Your task to perform on an android device: Show the shopping cart on ebay. Add "bose soundlink mini" to the cart on ebay Image 0: 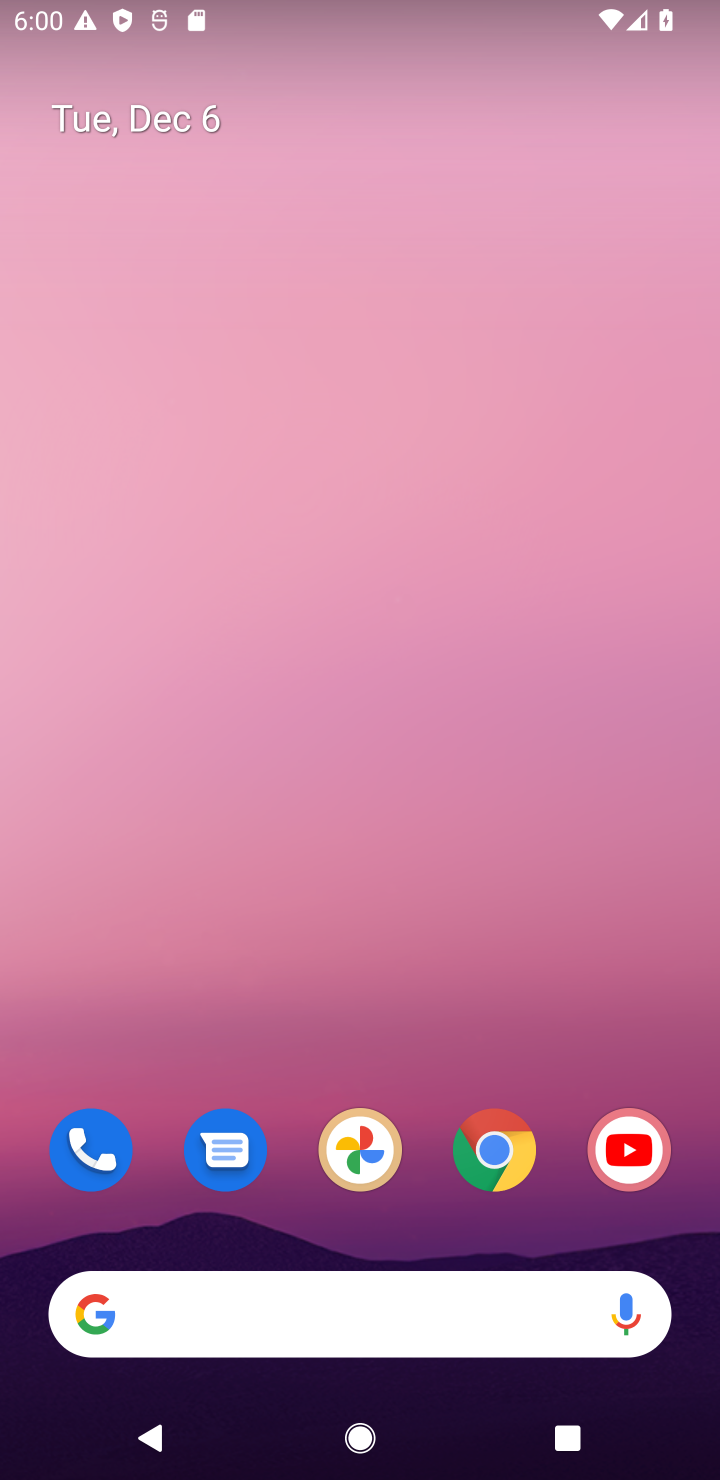
Step 0: click (495, 1175)
Your task to perform on an android device: Show the shopping cart on ebay. Add "bose soundlink mini" to the cart on ebay Image 1: 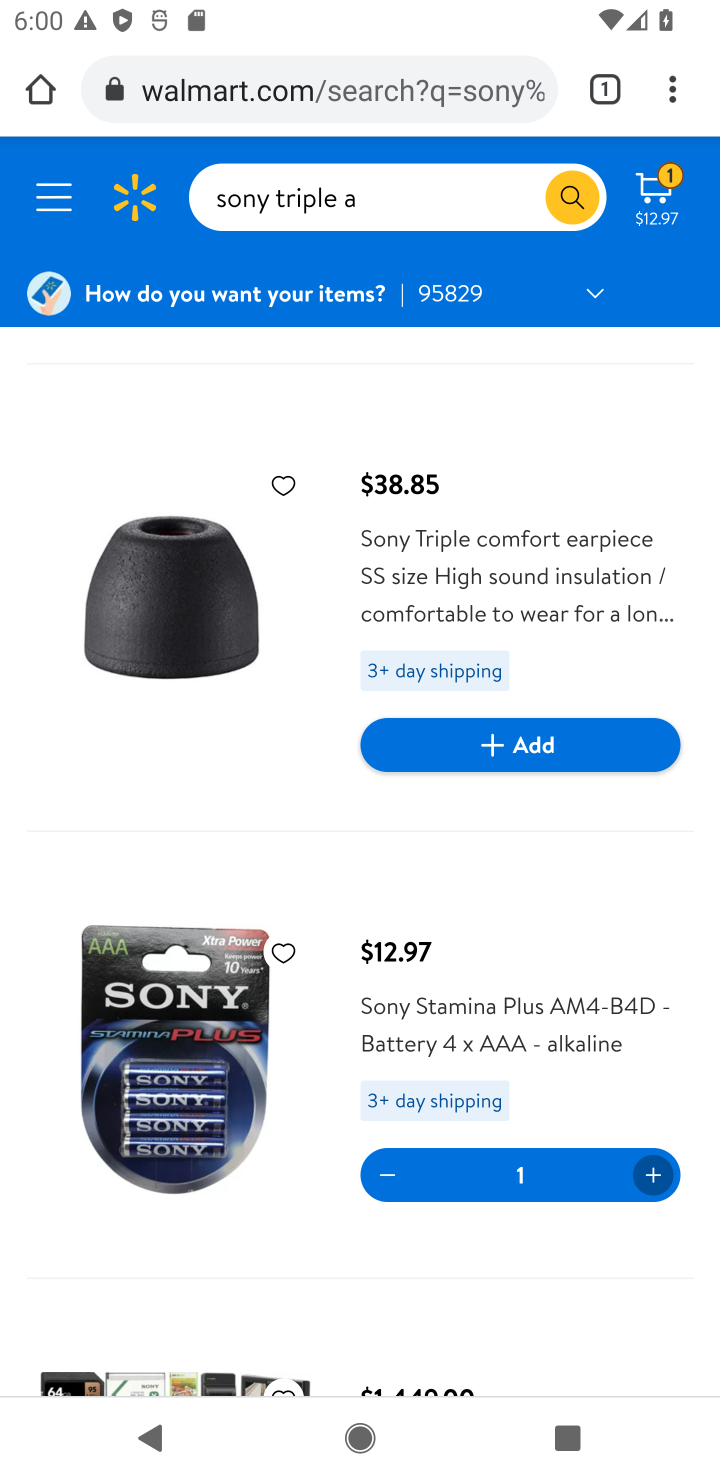
Step 1: click (270, 99)
Your task to perform on an android device: Show the shopping cart on ebay. Add "bose soundlink mini" to the cart on ebay Image 2: 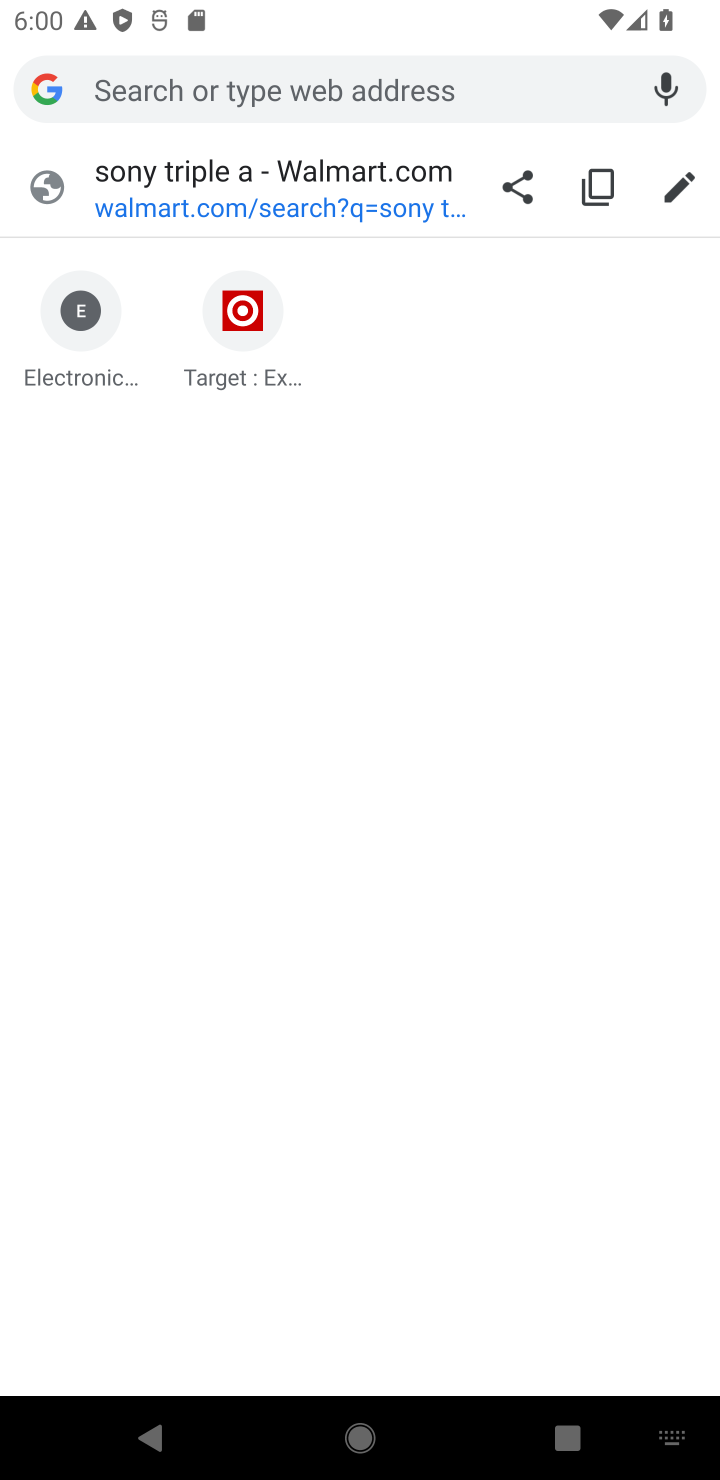
Step 2: type "ebay.com"
Your task to perform on an android device: Show the shopping cart on ebay. Add "bose soundlink mini" to the cart on ebay Image 3: 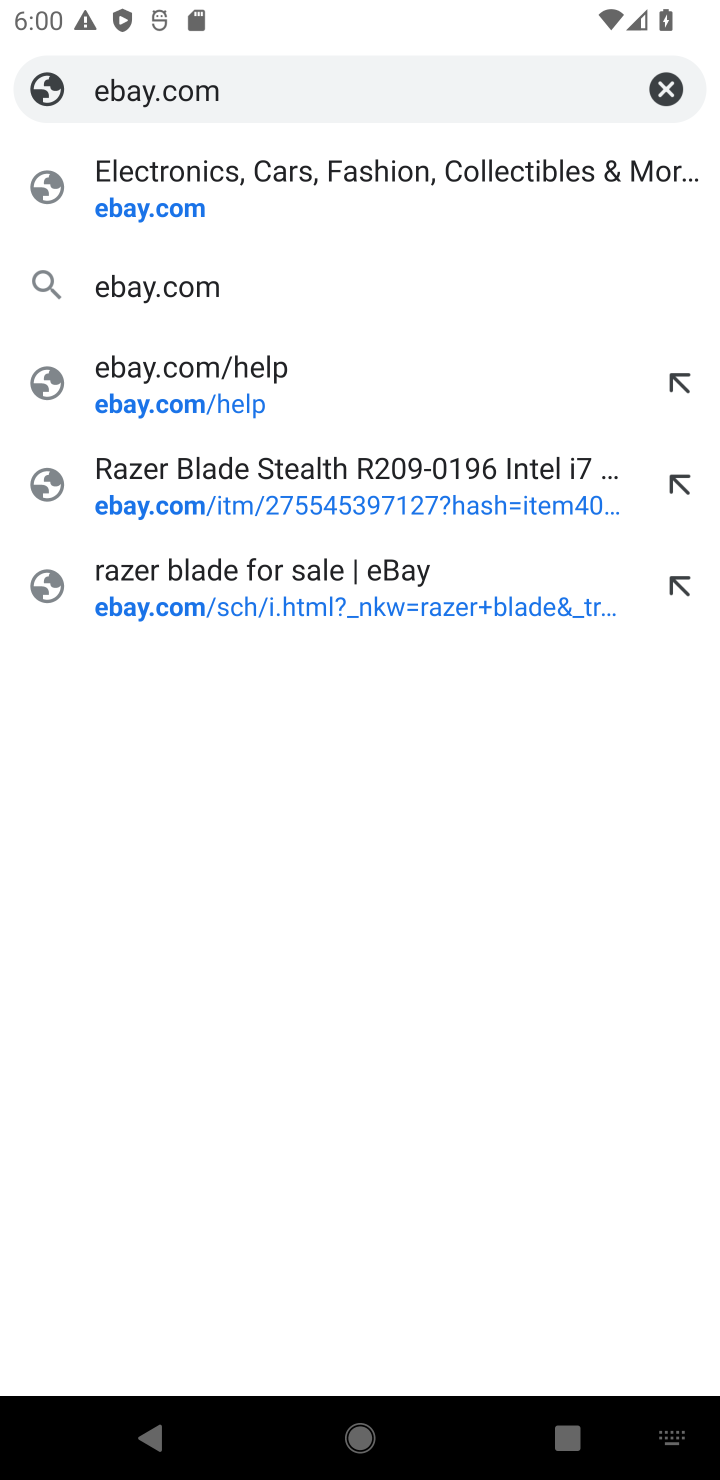
Step 3: click (119, 212)
Your task to perform on an android device: Show the shopping cart on ebay. Add "bose soundlink mini" to the cart on ebay Image 4: 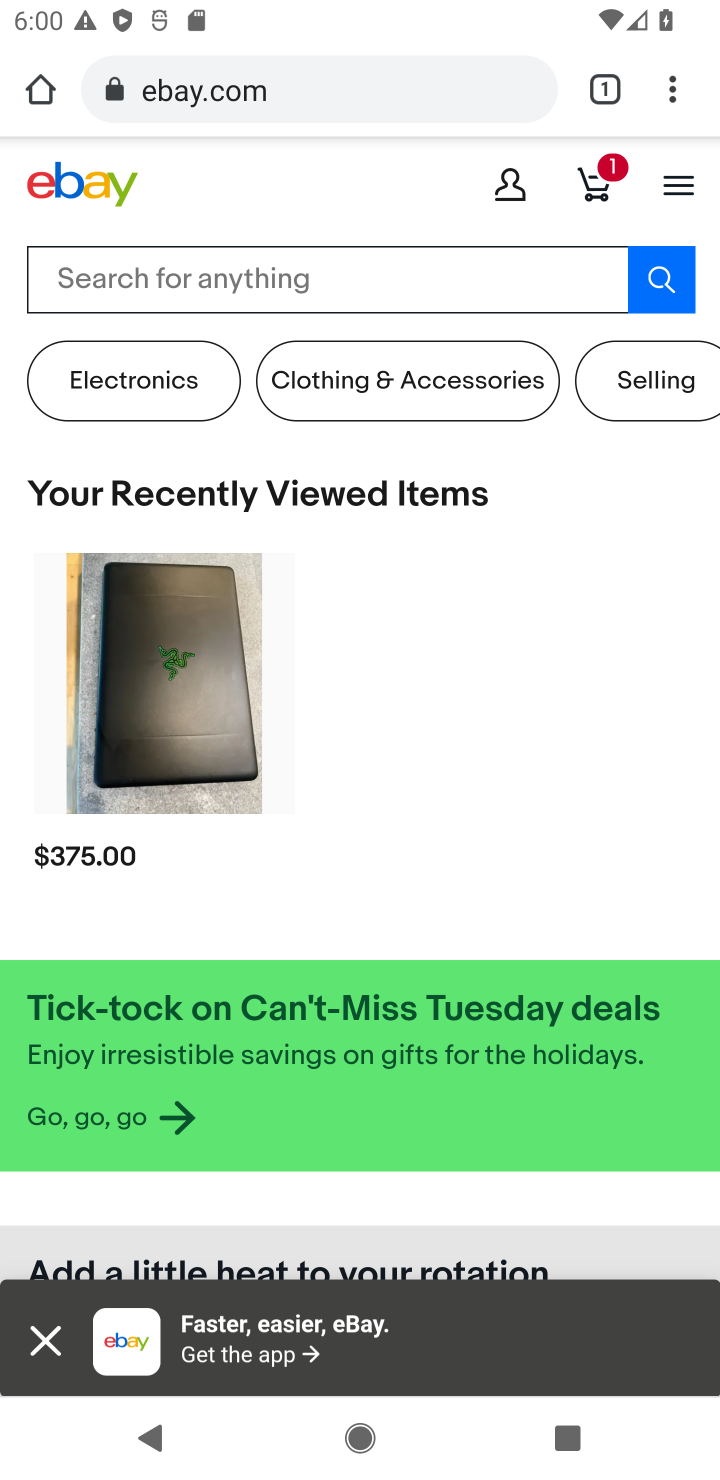
Step 4: click (597, 181)
Your task to perform on an android device: Show the shopping cart on ebay. Add "bose soundlink mini" to the cart on ebay Image 5: 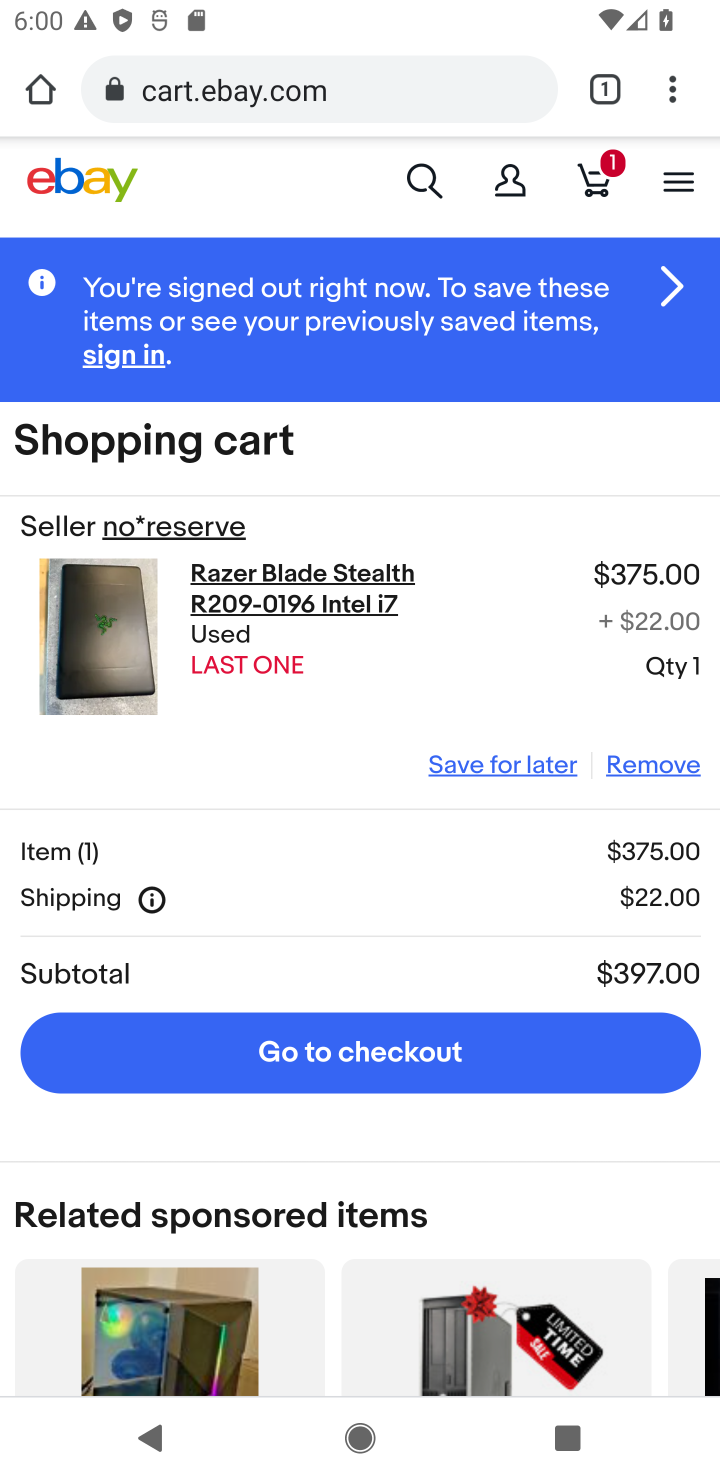
Step 5: click (421, 178)
Your task to perform on an android device: Show the shopping cart on ebay. Add "bose soundlink mini" to the cart on ebay Image 6: 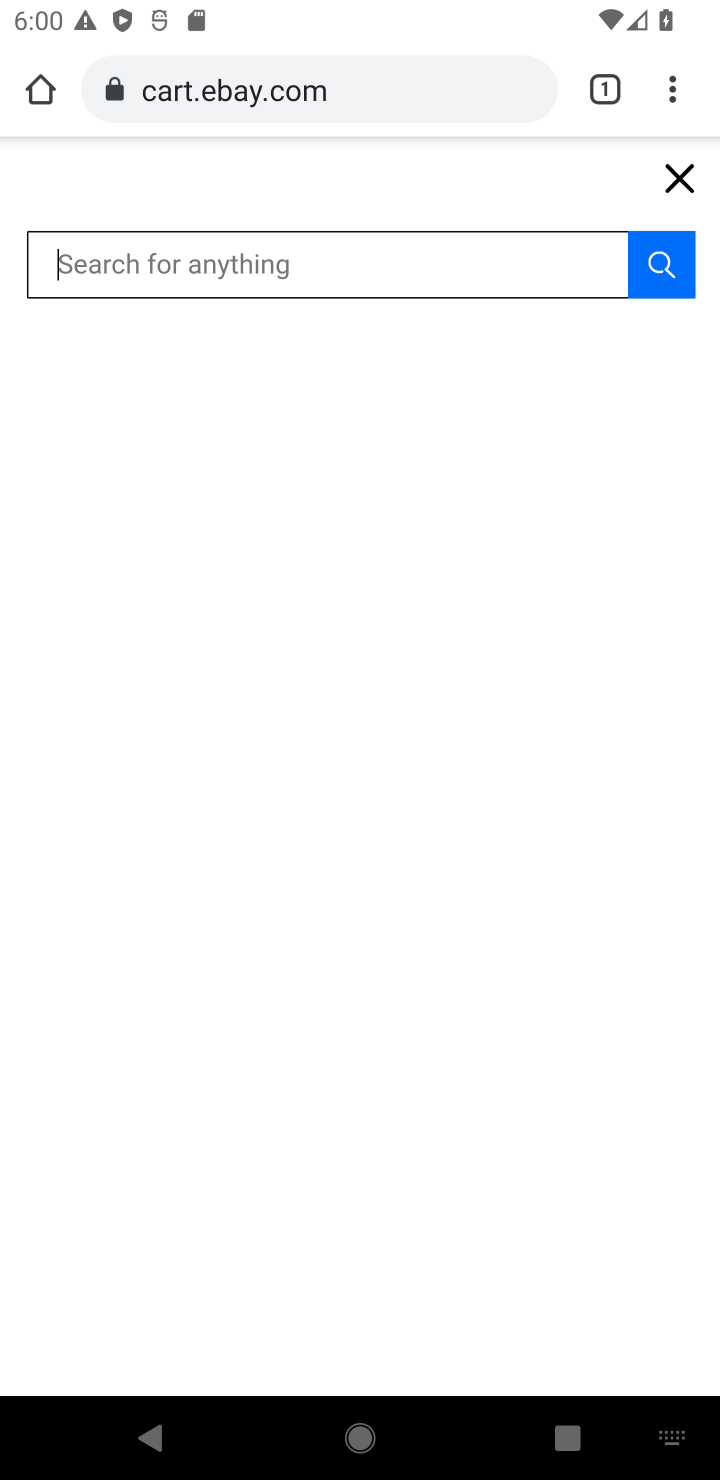
Step 6: type "bose soundlink mini"
Your task to perform on an android device: Show the shopping cart on ebay. Add "bose soundlink mini" to the cart on ebay Image 7: 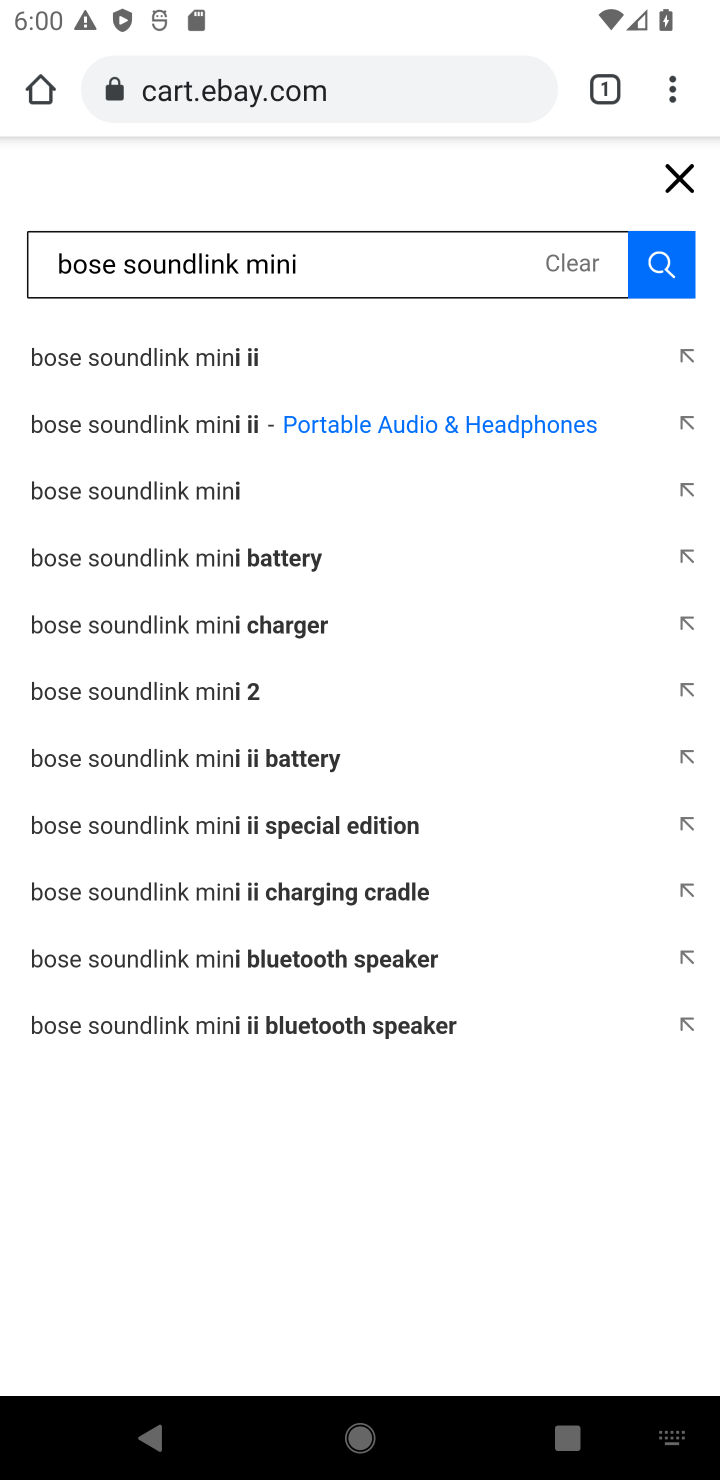
Step 7: click (130, 502)
Your task to perform on an android device: Show the shopping cart on ebay. Add "bose soundlink mini" to the cart on ebay Image 8: 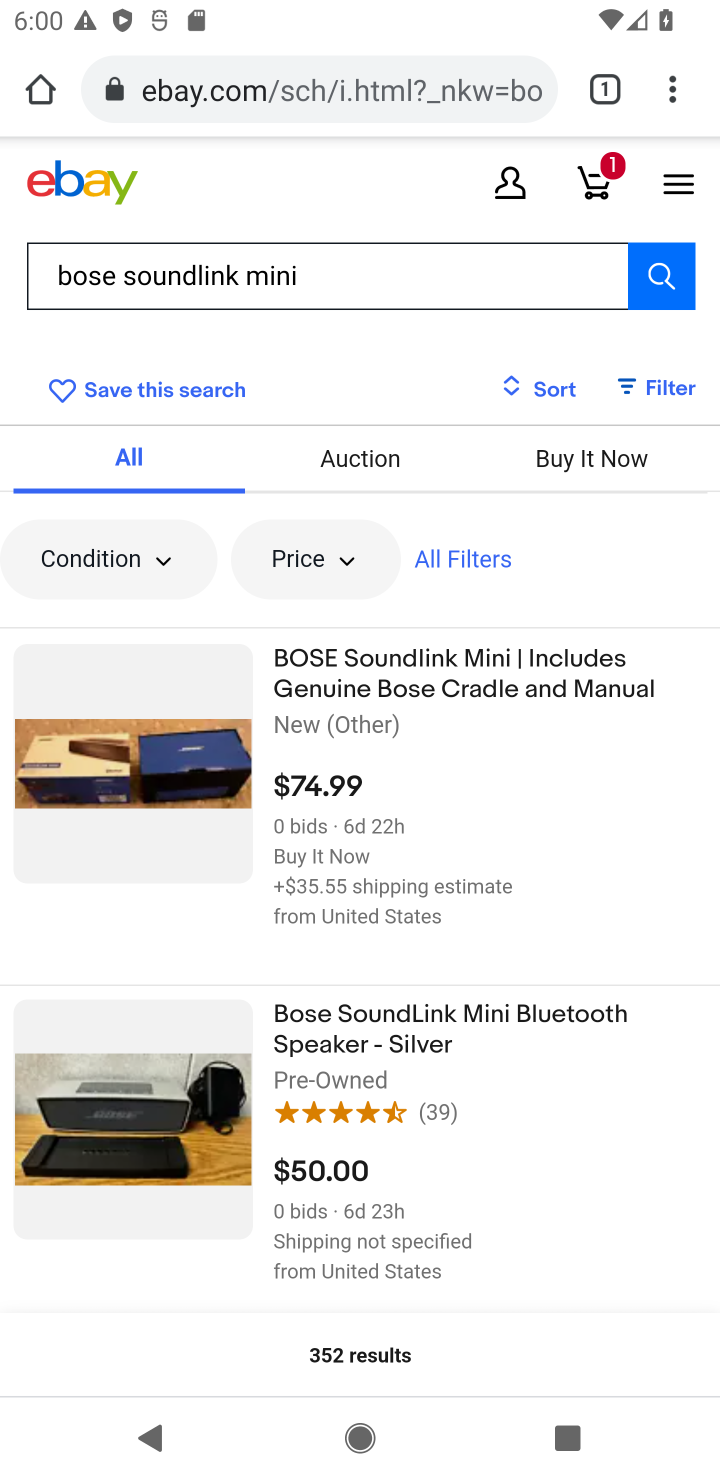
Step 8: drag from (544, 926) to (585, 487)
Your task to perform on an android device: Show the shopping cart on ebay. Add "bose soundlink mini" to the cart on ebay Image 9: 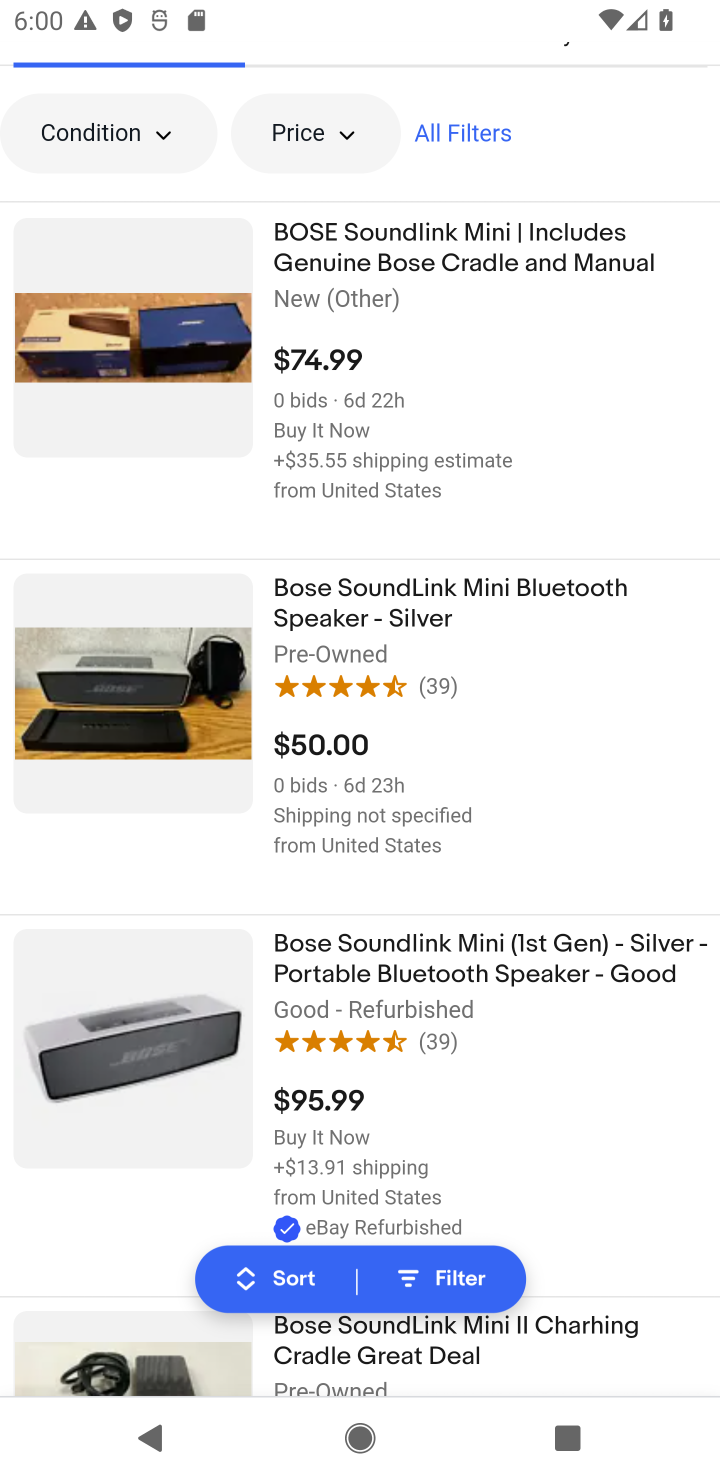
Step 9: click (350, 991)
Your task to perform on an android device: Show the shopping cart on ebay. Add "bose soundlink mini" to the cart on ebay Image 10: 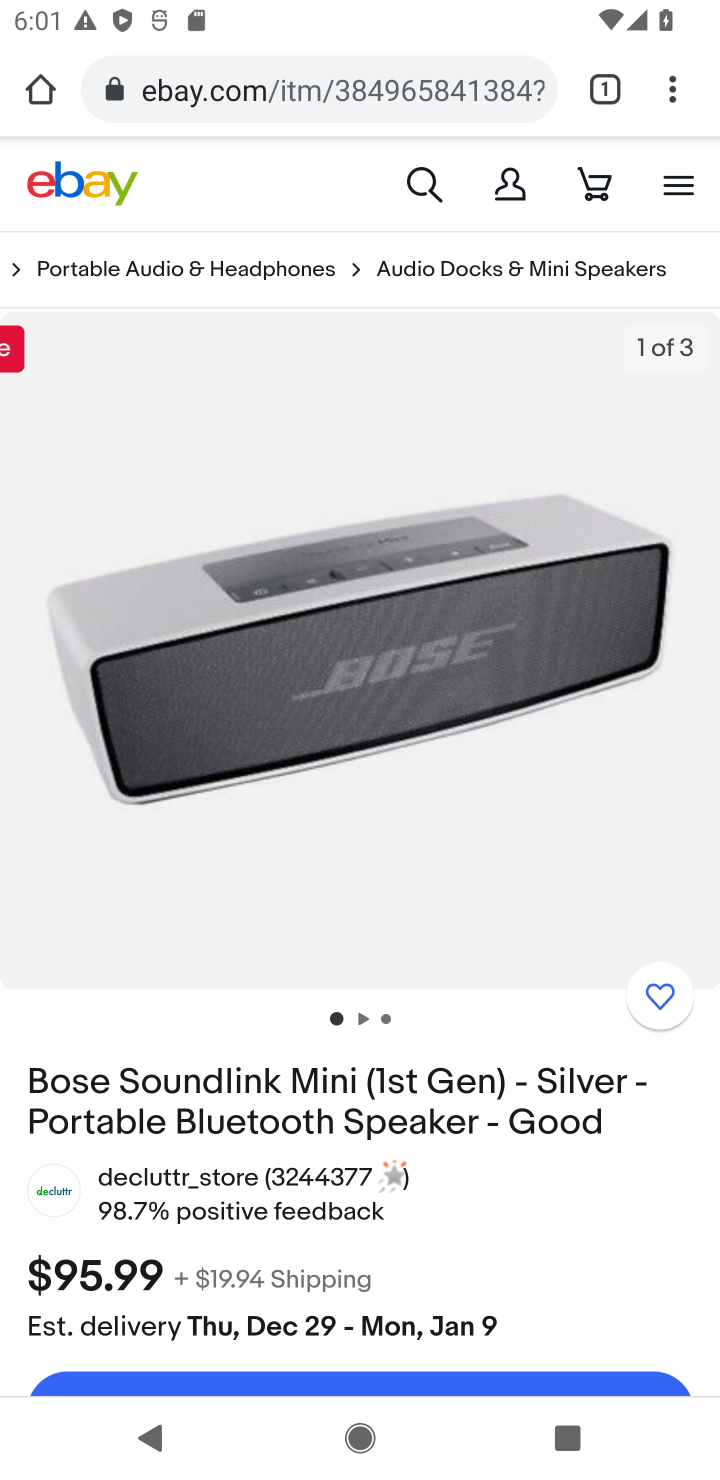
Step 10: drag from (380, 995) to (292, 537)
Your task to perform on an android device: Show the shopping cart on ebay. Add "bose soundlink mini" to the cart on ebay Image 11: 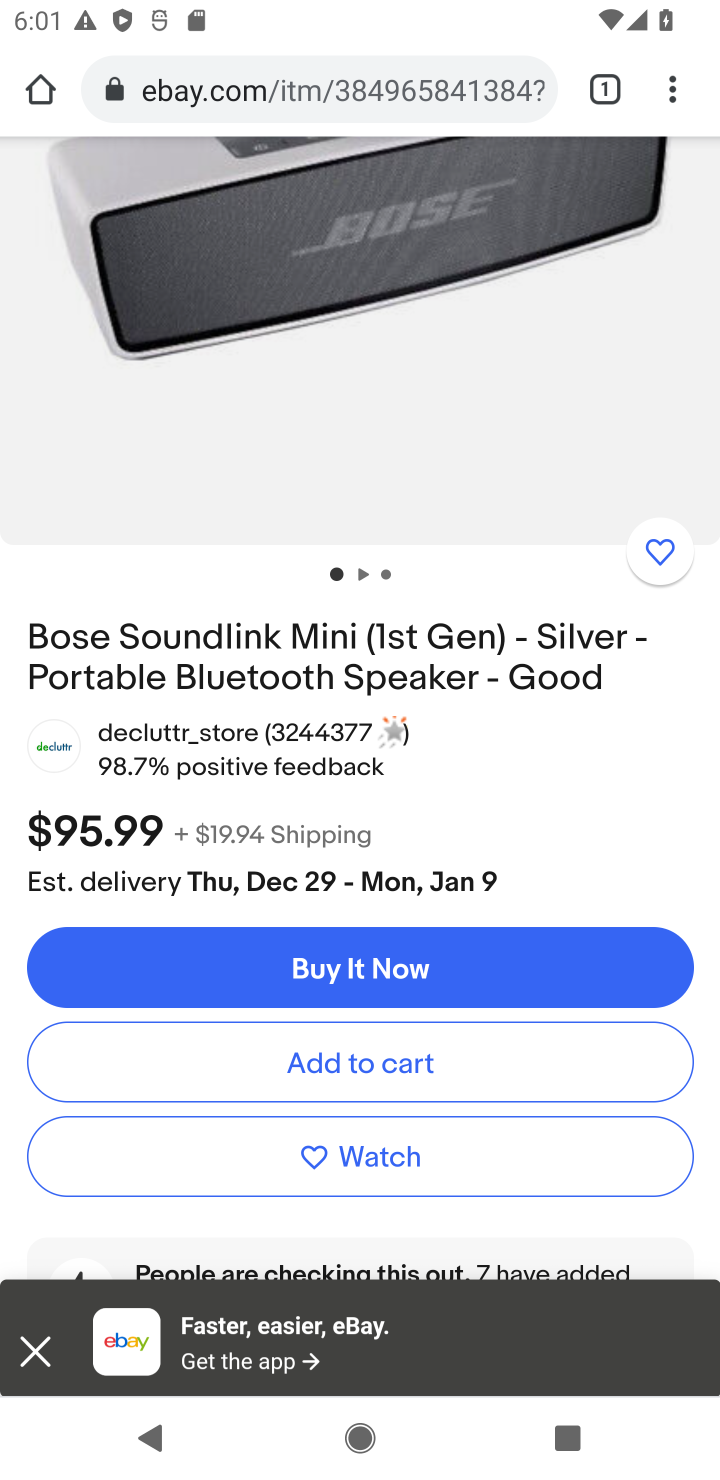
Step 11: click (295, 1070)
Your task to perform on an android device: Show the shopping cart on ebay. Add "bose soundlink mini" to the cart on ebay Image 12: 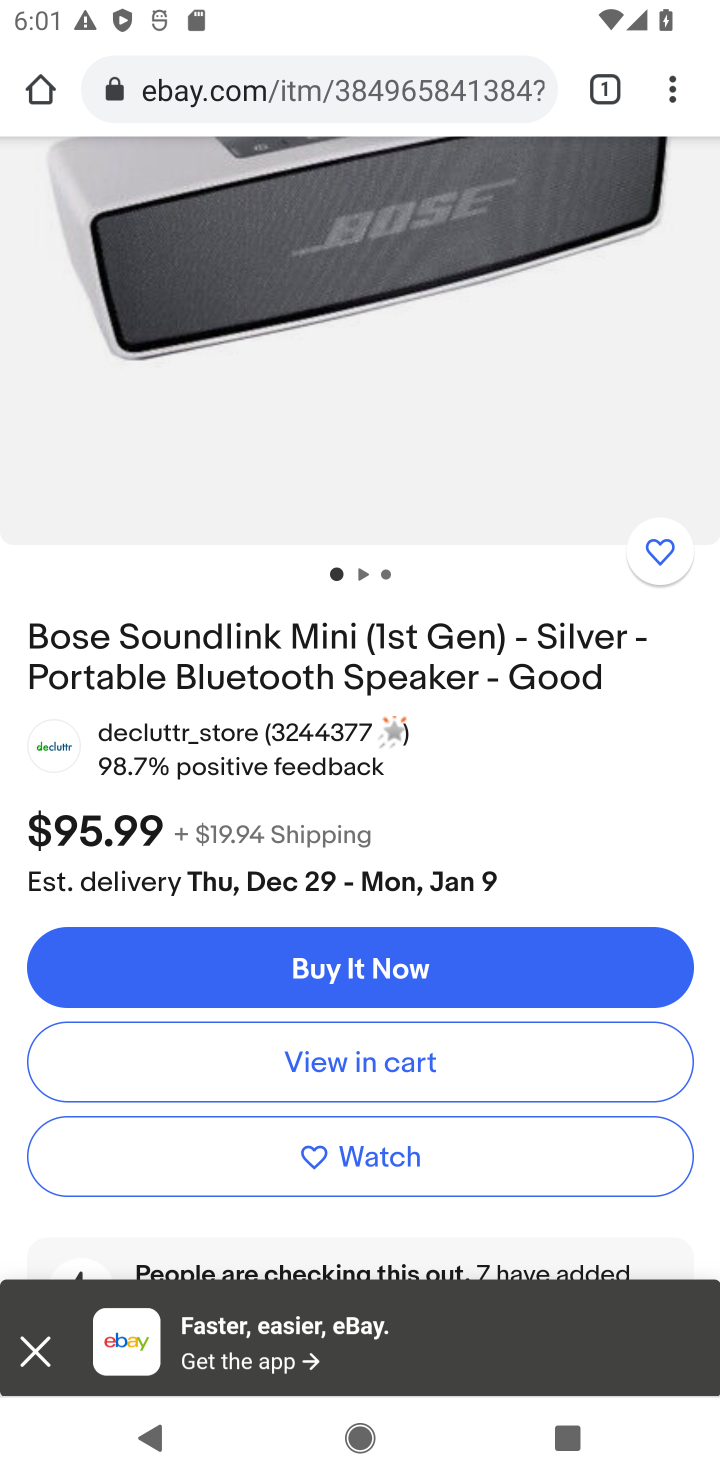
Step 12: task complete